Your task to perform on an android device: Open Reddit.com Image 0: 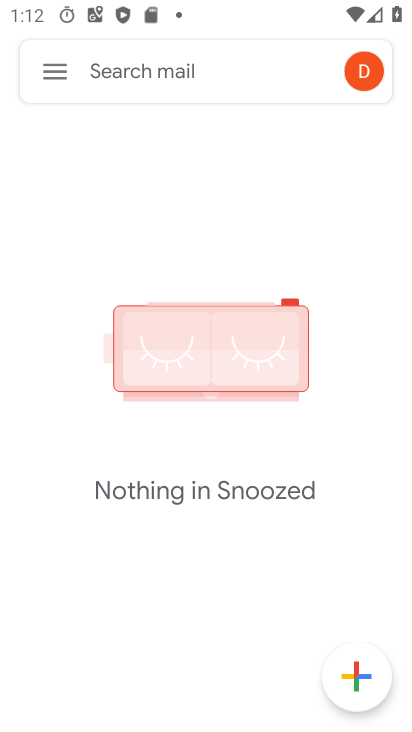
Step 0: press home button
Your task to perform on an android device: Open Reddit.com Image 1: 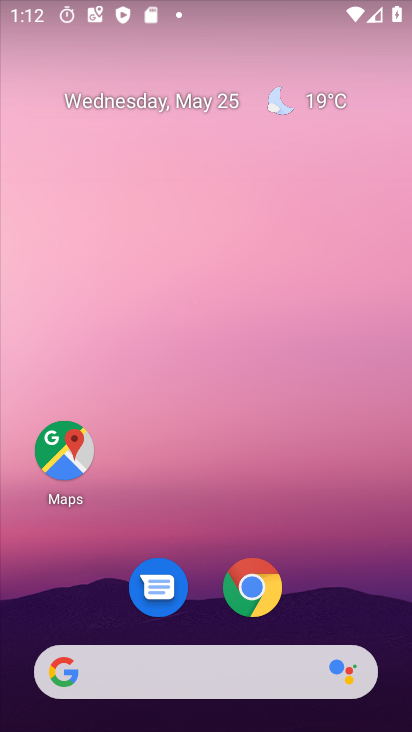
Step 1: click (254, 585)
Your task to perform on an android device: Open Reddit.com Image 2: 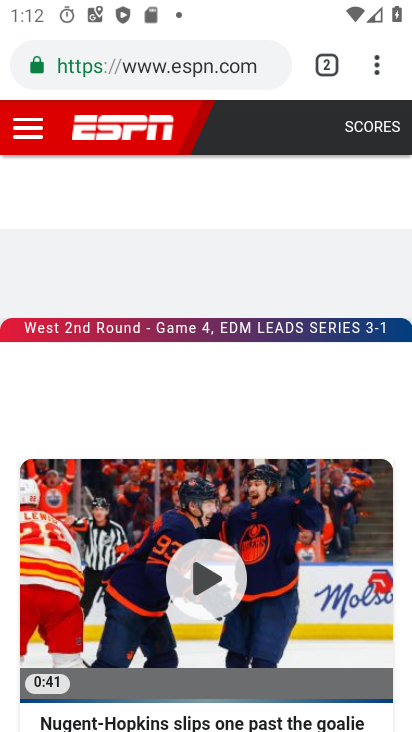
Step 2: click (377, 73)
Your task to perform on an android device: Open Reddit.com Image 3: 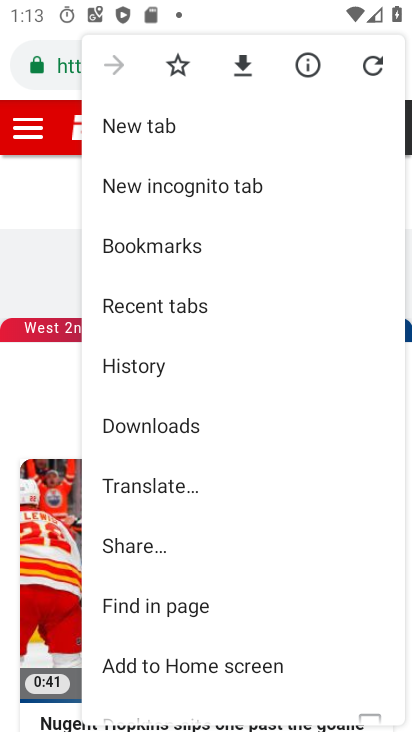
Step 3: click (131, 124)
Your task to perform on an android device: Open Reddit.com Image 4: 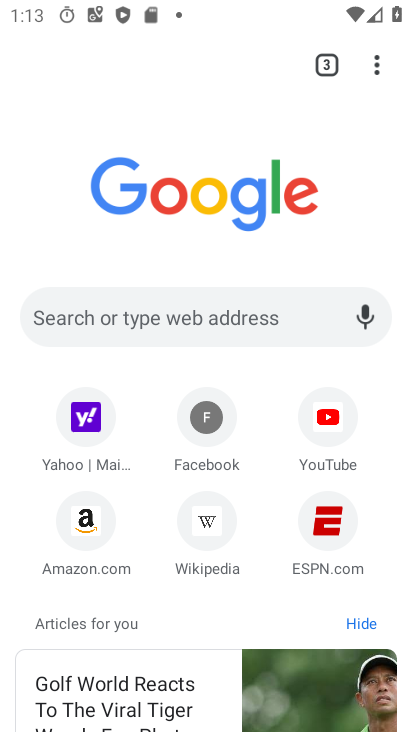
Step 4: click (221, 318)
Your task to perform on an android device: Open Reddit.com Image 5: 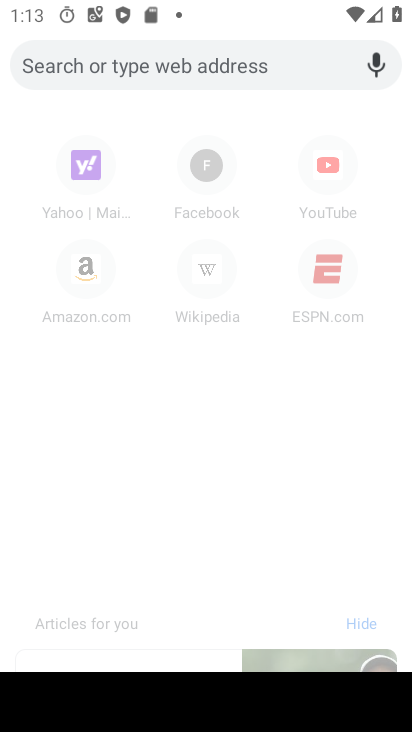
Step 5: type "Reddit.com"
Your task to perform on an android device: Open Reddit.com Image 6: 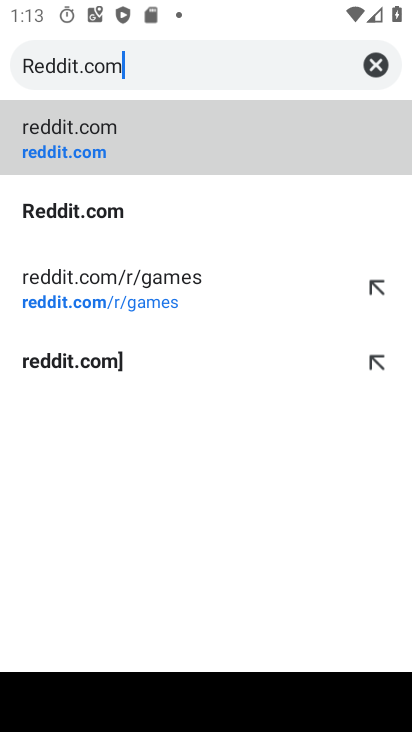
Step 6: click (73, 133)
Your task to perform on an android device: Open Reddit.com Image 7: 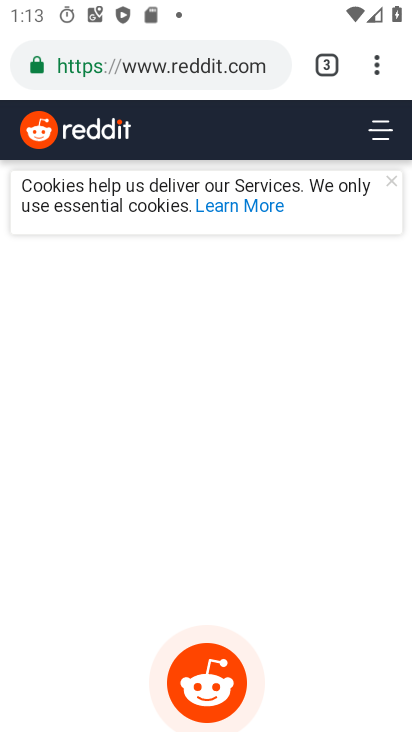
Step 7: task complete